Your task to perform on an android device: turn smart compose on in the gmail app Image 0: 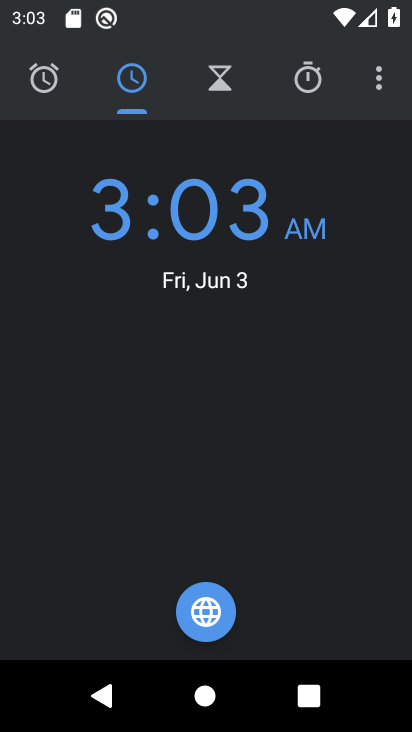
Step 0: press back button
Your task to perform on an android device: turn smart compose on in the gmail app Image 1: 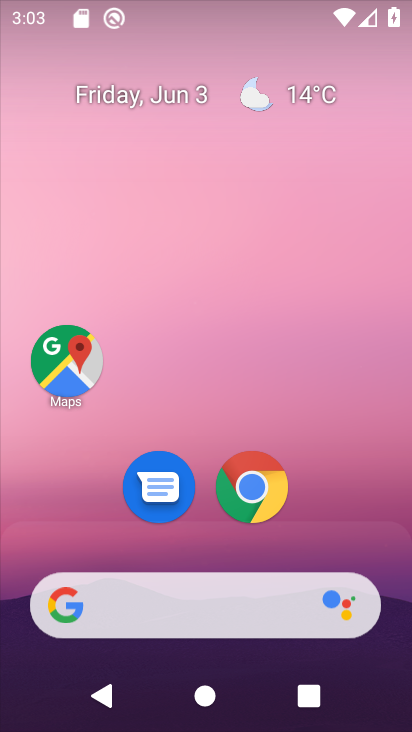
Step 1: drag from (267, 158) to (282, 66)
Your task to perform on an android device: turn smart compose on in the gmail app Image 2: 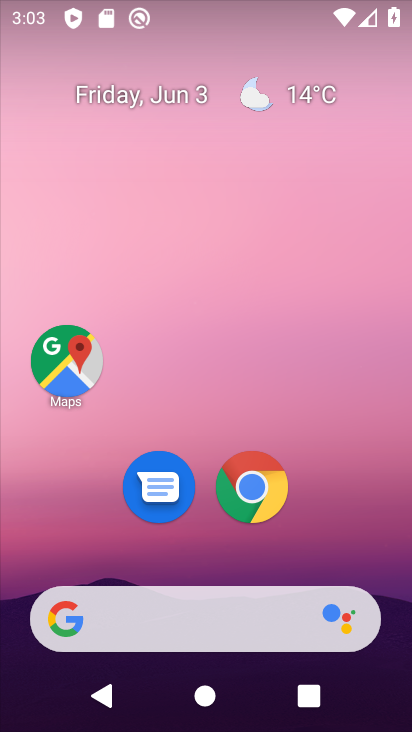
Step 2: drag from (164, 396) to (214, 60)
Your task to perform on an android device: turn smart compose on in the gmail app Image 3: 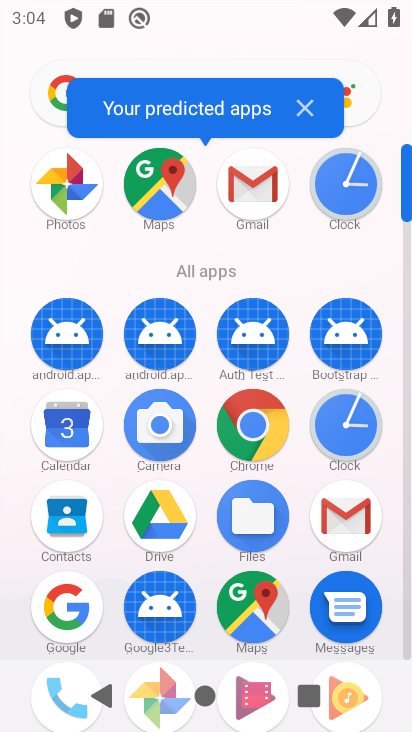
Step 3: click (257, 188)
Your task to perform on an android device: turn smart compose on in the gmail app Image 4: 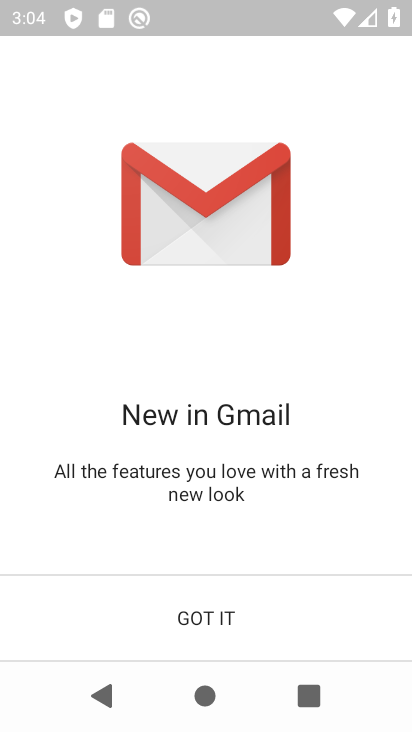
Step 4: click (166, 634)
Your task to perform on an android device: turn smart compose on in the gmail app Image 5: 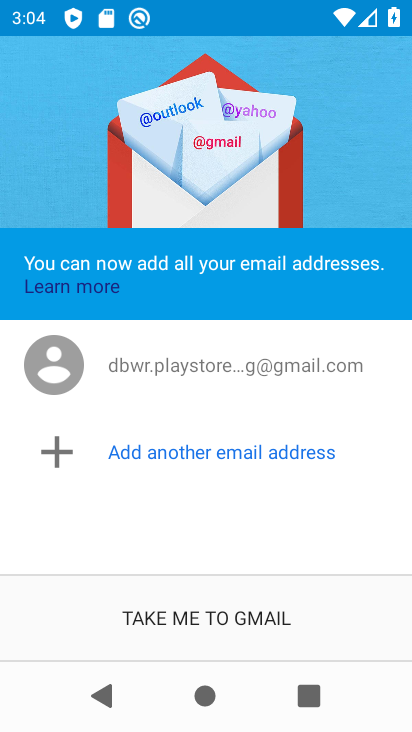
Step 5: click (172, 608)
Your task to perform on an android device: turn smart compose on in the gmail app Image 6: 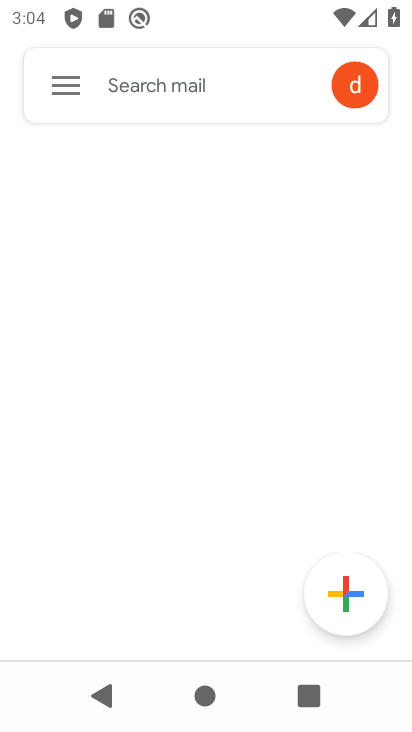
Step 6: click (58, 80)
Your task to perform on an android device: turn smart compose on in the gmail app Image 7: 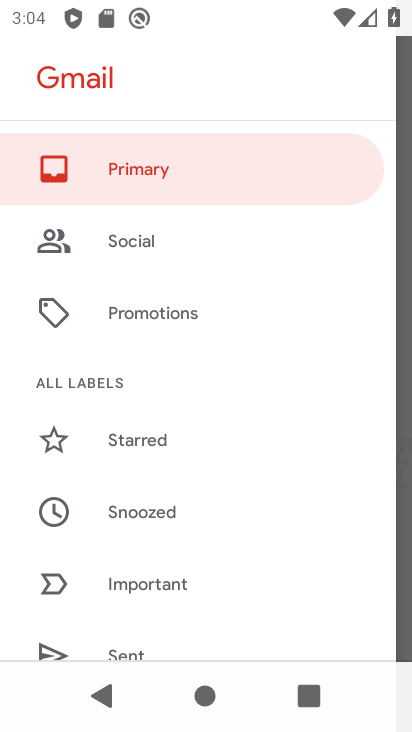
Step 7: drag from (202, 614) to (214, 82)
Your task to perform on an android device: turn smart compose on in the gmail app Image 8: 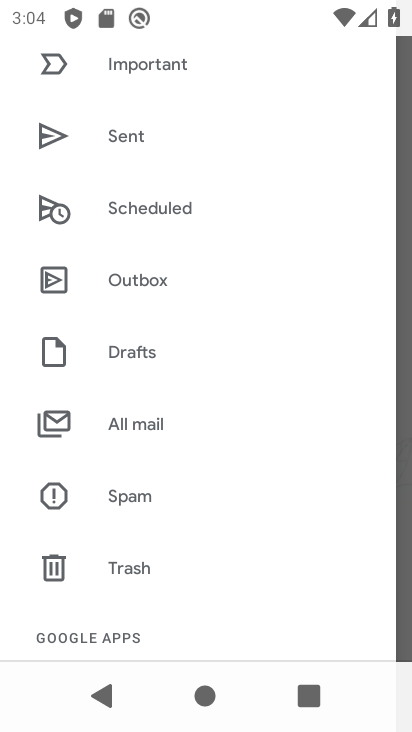
Step 8: drag from (182, 494) to (255, 56)
Your task to perform on an android device: turn smart compose on in the gmail app Image 9: 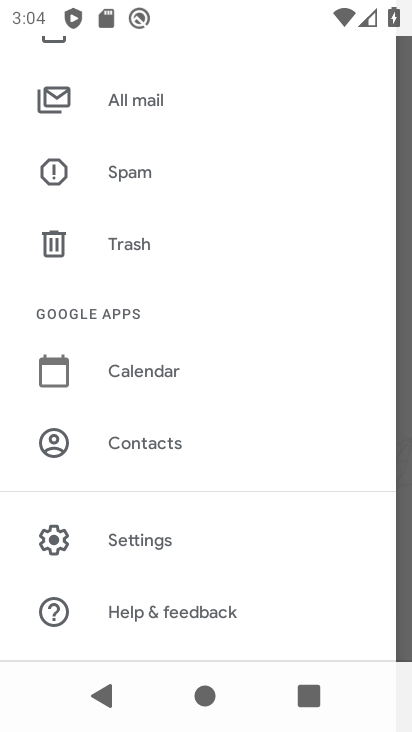
Step 9: click (133, 521)
Your task to perform on an android device: turn smart compose on in the gmail app Image 10: 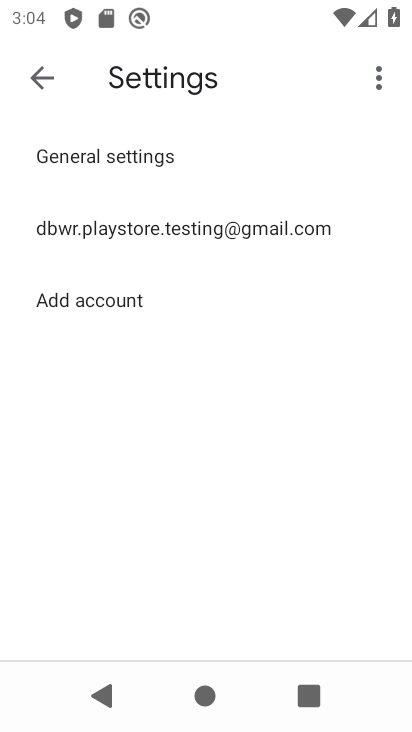
Step 10: click (115, 213)
Your task to perform on an android device: turn smart compose on in the gmail app Image 11: 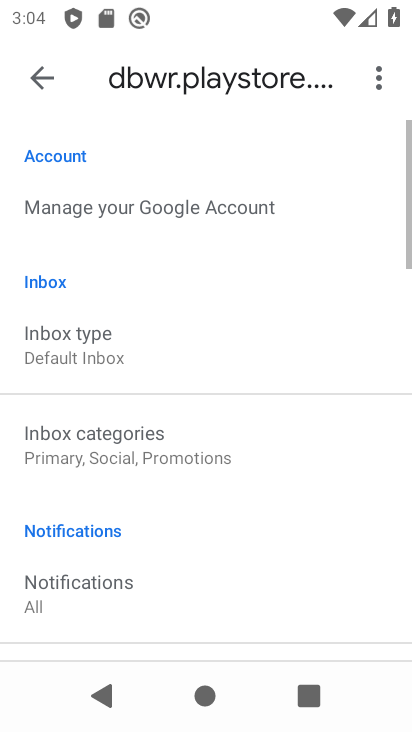
Step 11: task complete